Your task to perform on an android device: Go to sound settings Image 0: 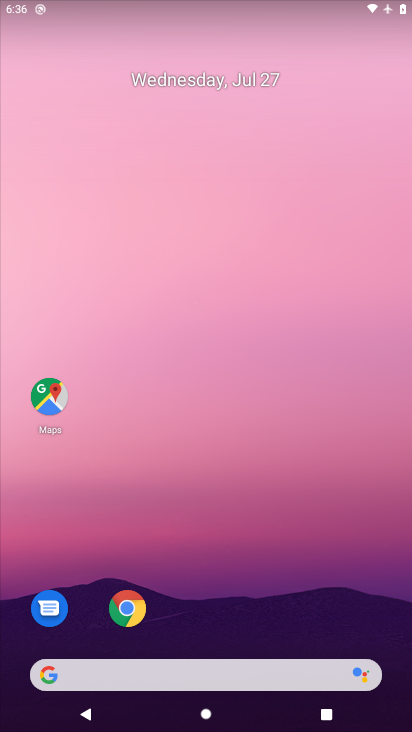
Step 0: press home button
Your task to perform on an android device: Go to sound settings Image 1: 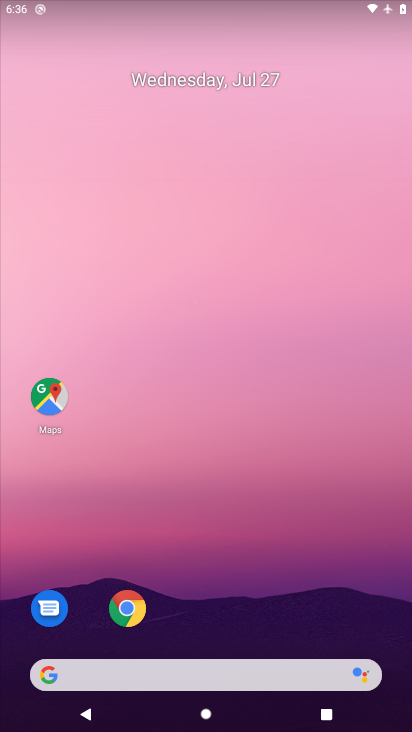
Step 1: click (224, 614)
Your task to perform on an android device: Go to sound settings Image 2: 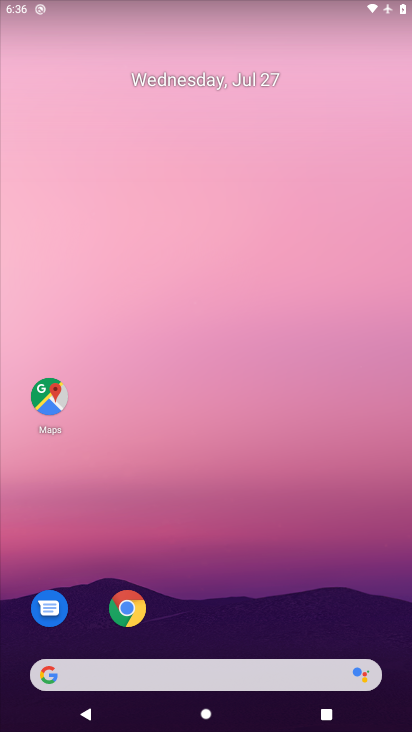
Step 2: drag from (210, 630) to (169, 361)
Your task to perform on an android device: Go to sound settings Image 3: 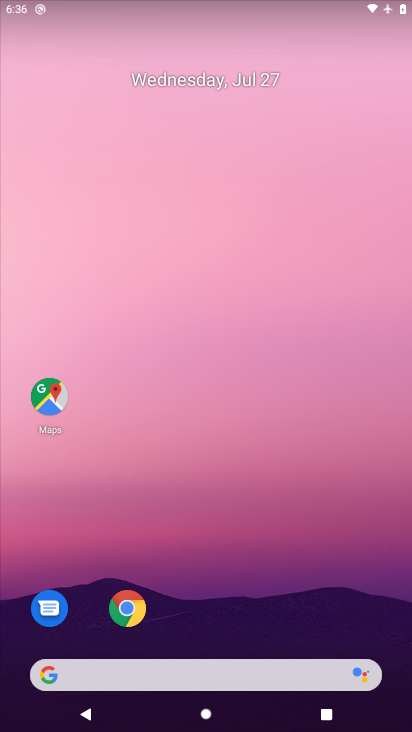
Step 3: drag from (234, 627) to (227, 504)
Your task to perform on an android device: Go to sound settings Image 4: 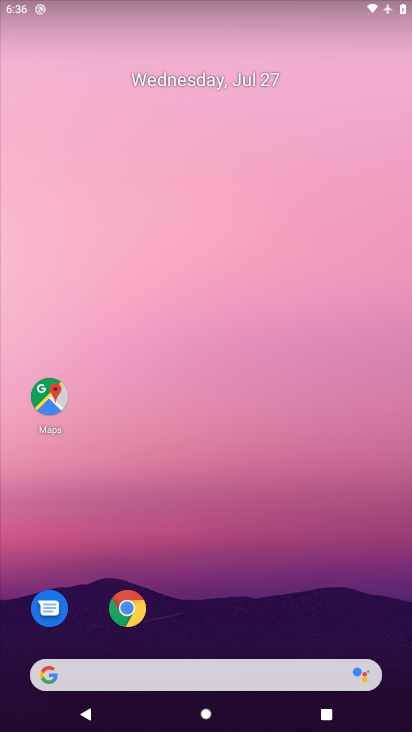
Step 4: drag from (212, 617) to (185, 241)
Your task to perform on an android device: Go to sound settings Image 5: 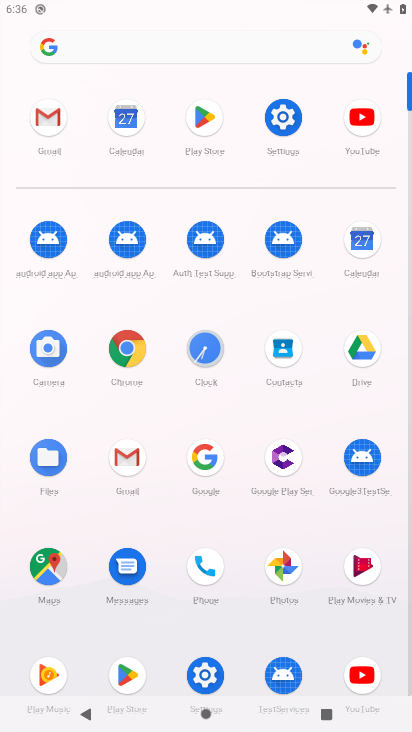
Step 5: click (281, 129)
Your task to perform on an android device: Go to sound settings Image 6: 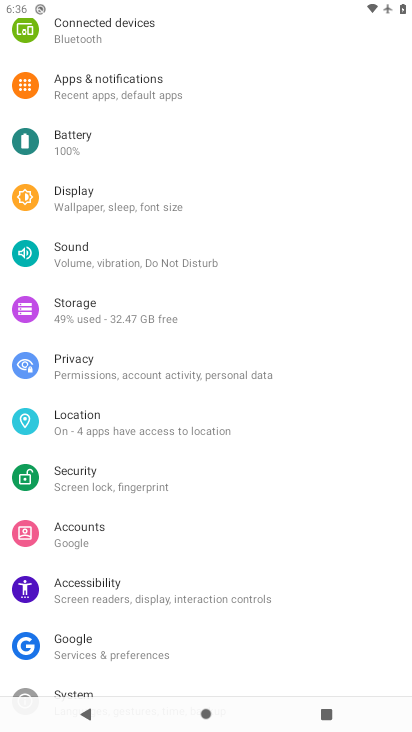
Step 6: click (64, 253)
Your task to perform on an android device: Go to sound settings Image 7: 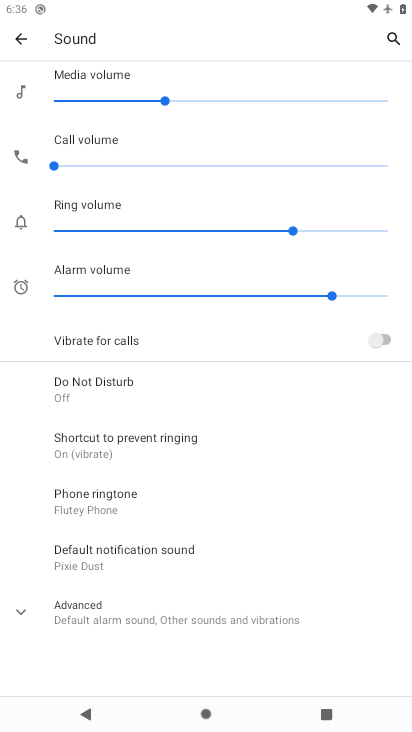
Step 7: task complete